Your task to perform on an android device: check android version Image 0: 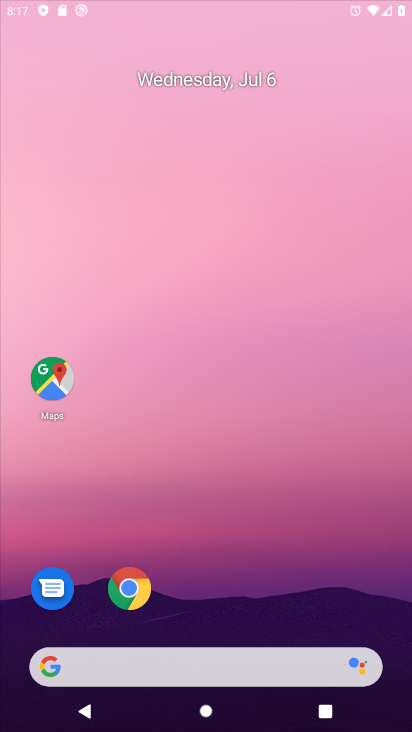
Step 0: drag from (235, 635) to (221, 350)
Your task to perform on an android device: check android version Image 1: 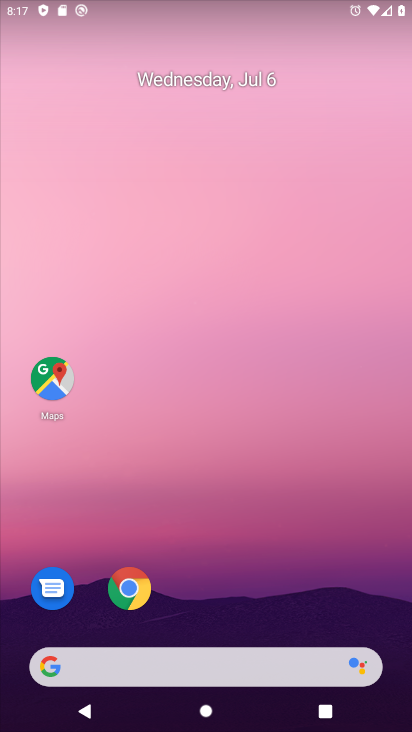
Step 1: drag from (254, 619) to (247, 298)
Your task to perform on an android device: check android version Image 2: 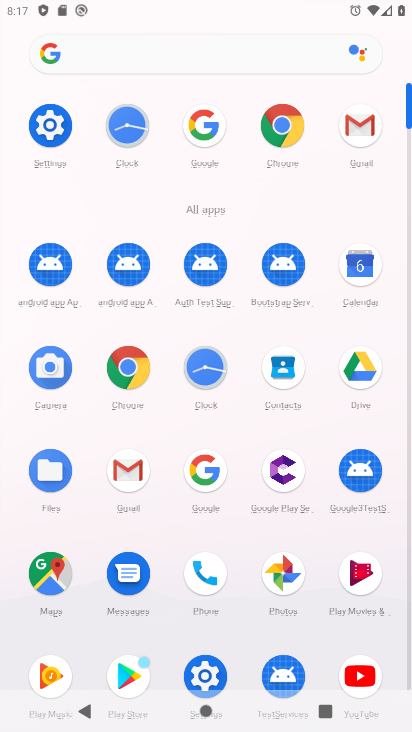
Step 2: click (47, 118)
Your task to perform on an android device: check android version Image 3: 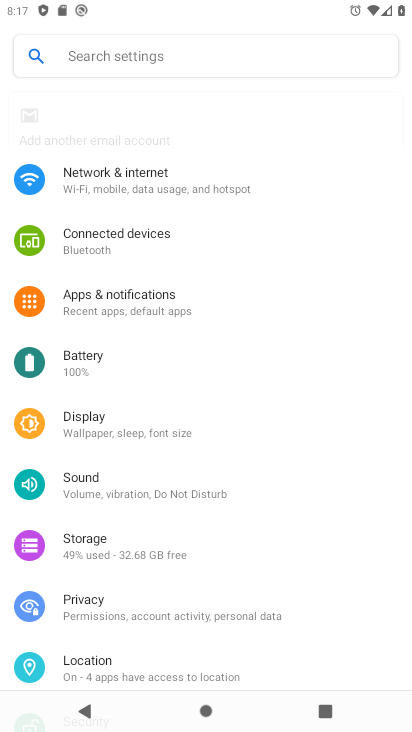
Step 3: drag from (261, 611) to (255, 87)
Your task to perform on an android device: check android version Image 4: 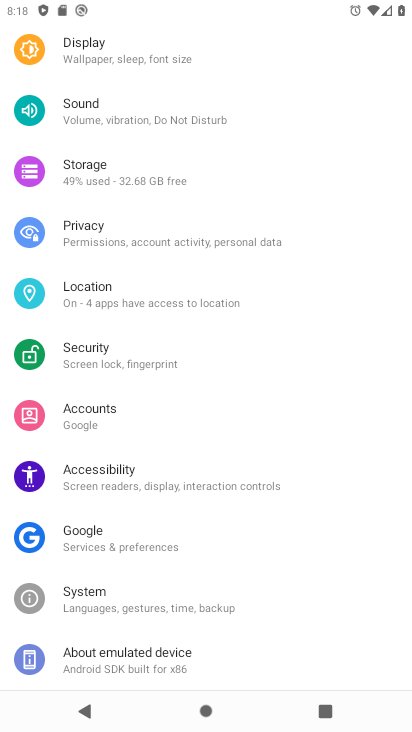
Step 4: drag from (250, 597) to (277, 247)
Your task to perform on an android device: check android version Image 5: 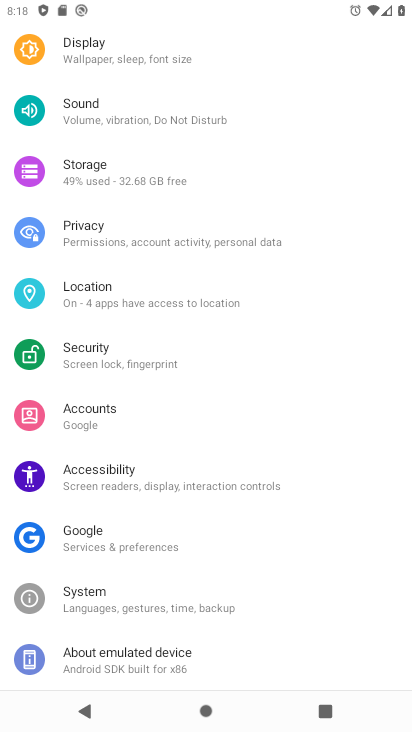
Step 5: click (149, 662)
Your task to perform on an android device: check android version Image 6: 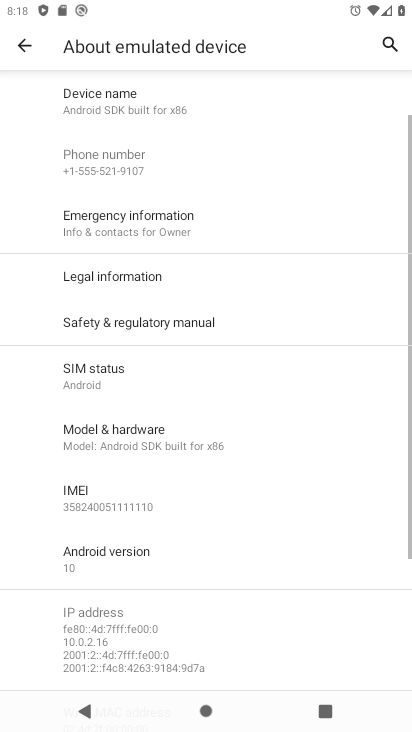
Step 6: click (177, 558)
Your task to perform on an android device: check android version Image 7: 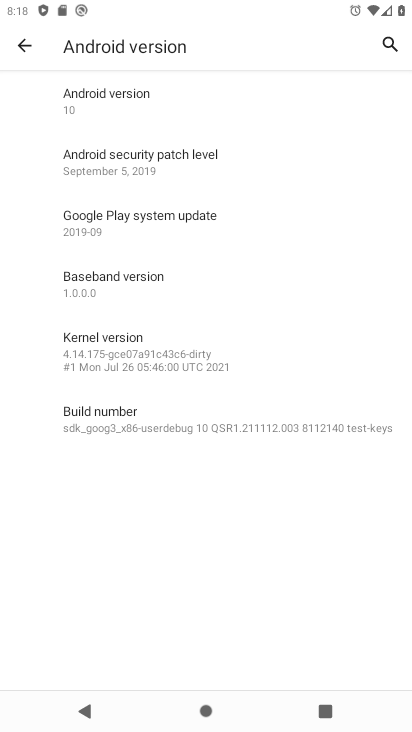
Step 7: task complete